Your task to perform on an android device: toggle sleep mode Image 0: 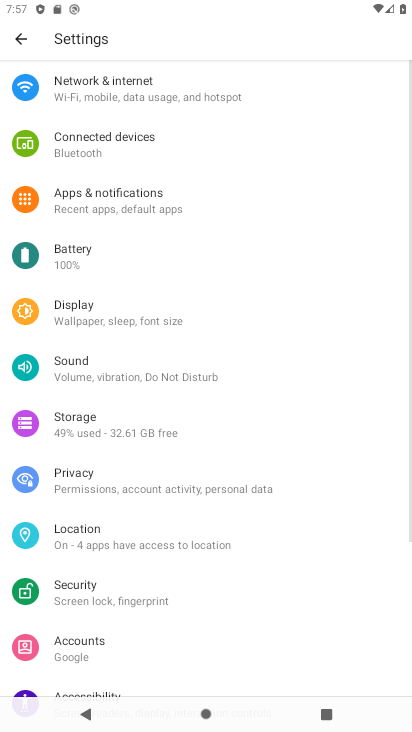
Step 0: drag from (111, 541) to (168, 115)
Your task to perform on an android device: toggle sleep mode Image 1: 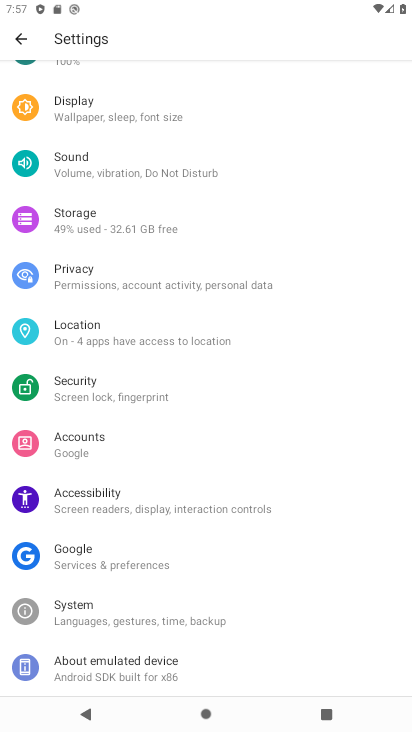
Step 1: task complete